Your task to perform on an android device: Open Google Chrome and click the shortcut for Amazon.com Image 0: 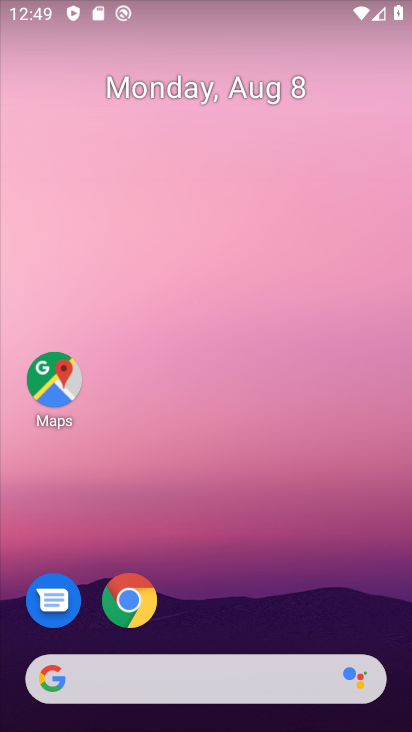
Step 0: press home button
Your task to perform on an android device: Open Google Chrome and click the shortcut for Amazon.com Image 1: 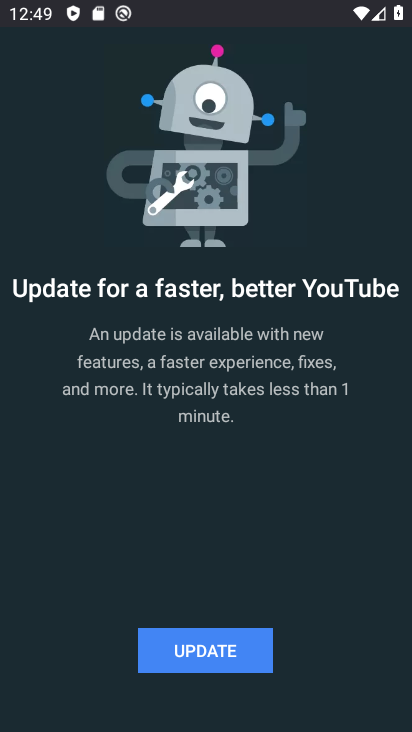
Step 1: click (372, 154)
Your task to perform on an android device: Open Google Chrome and click the shortcut for Amazon.com Image 2: 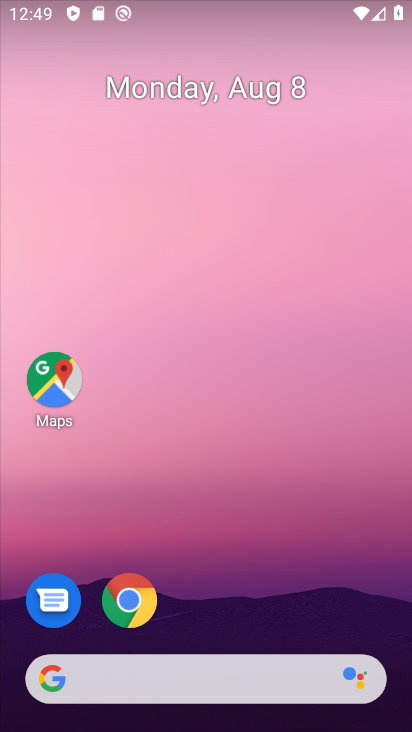
Step 2: drag from (246, 625) to (277, 308)
Your task to perform on an android device: Open Google Chrome and click the shortcut for Amazon.com Image 3: 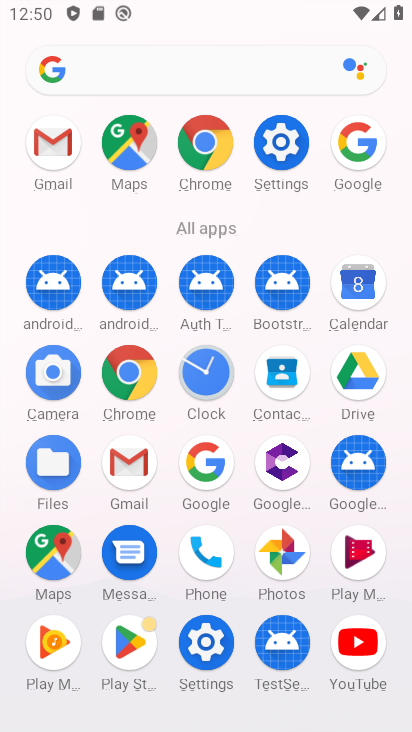
Step 3: click (118, 376)
Your task to perform on an android device: Open Google Chrome and click the shortcut for Amazon.com Image 4: 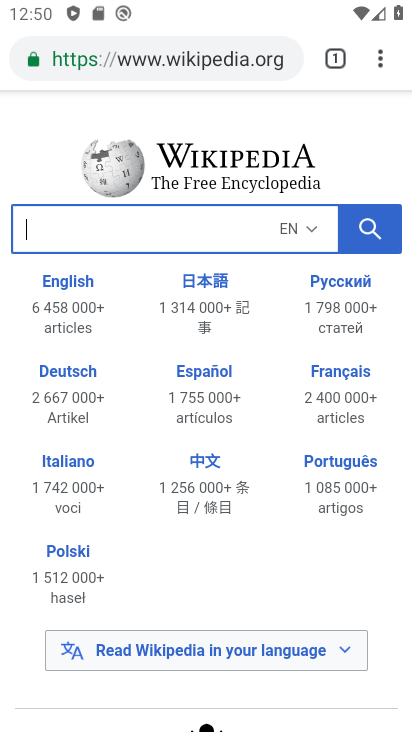
Step 4: click (146, 52)
Your task to perform on an android device: Open Google Chrome and click the shortcut for Amazon.com Image 5: 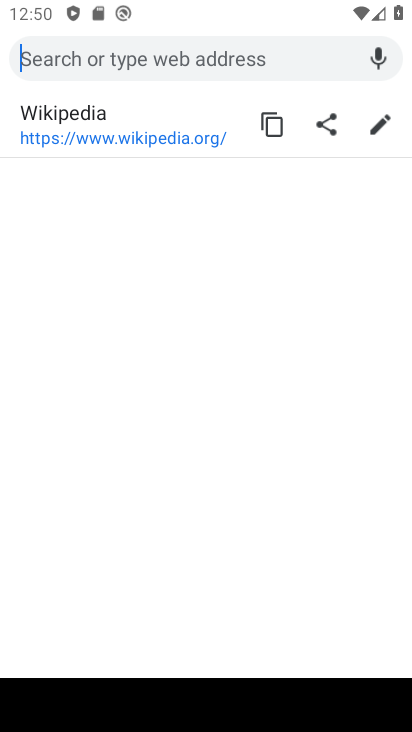
Step 5: type "Amazon.com"
Your task to perform on an android device: Open Google Chrome and click the shortcut for Amazon.com Image 6: 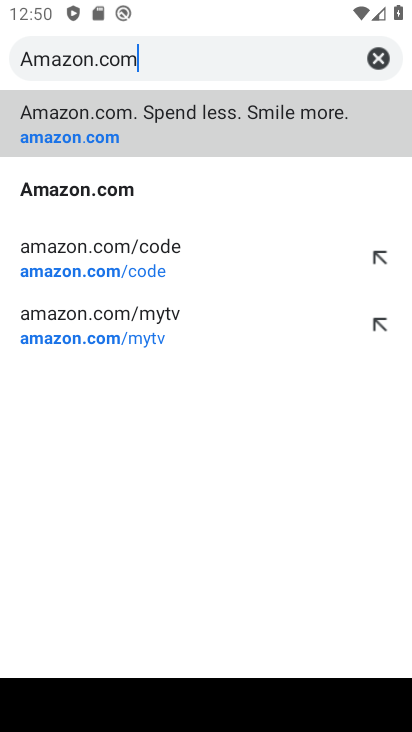
Step 6: type ""
Your task to perform on an android device: Open Google Chrome and click the shortcut for Amazon.com Image 7: 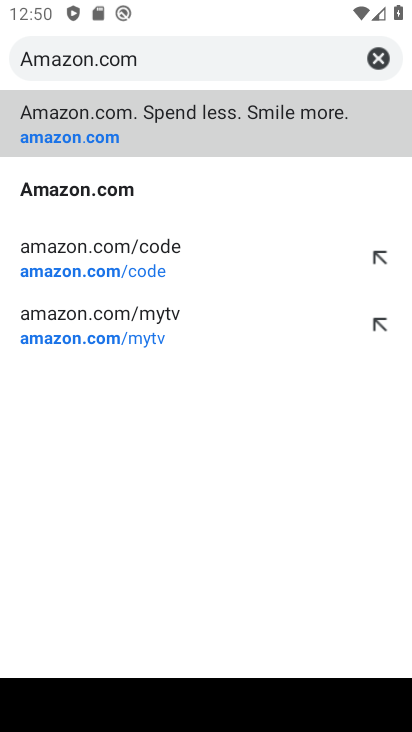
Step 7: click (131, 131)
Your task to perform on an android device: Open Google Chrome and click the shortcut for Amazon.com Image 8: 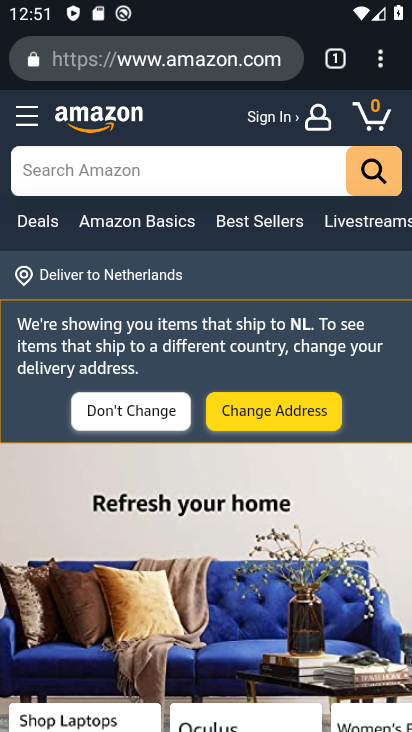
Step 8: task complete